Your task to perform on an android device: Go to notification settings Image 0: 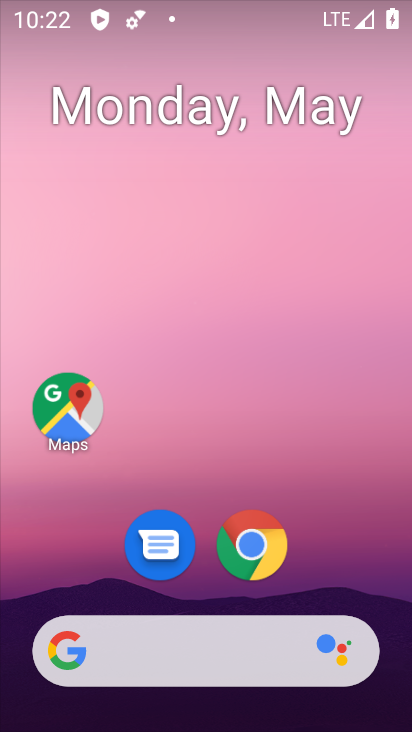
Step 0: drag from (340, 534) to (304, 38)
Your task to perform on an android device: Go to notification settings Image 1: 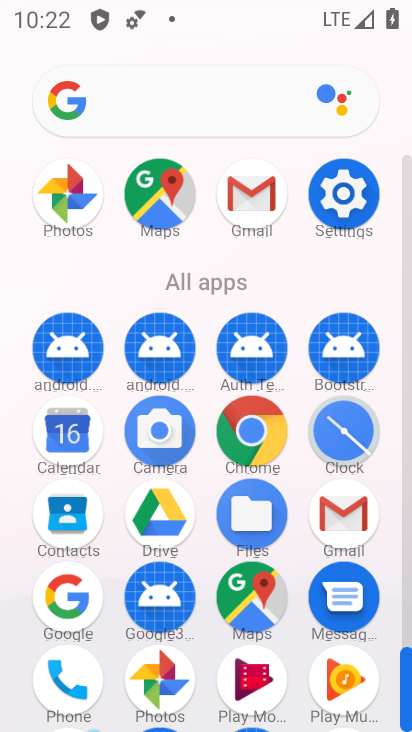
Step 1: click (345, 194)
Your task to perform on an android device: Go to notification settings Image 2: 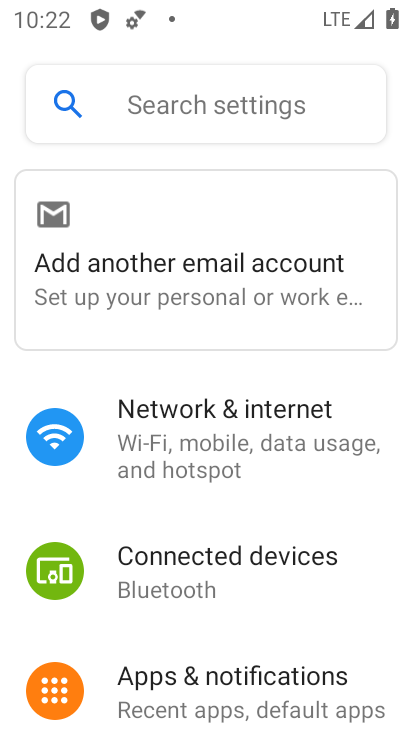
Step 2: drag from (209, 534) to (237, 374)
Your task to perform on an android device: Go to notification settings Image 3: 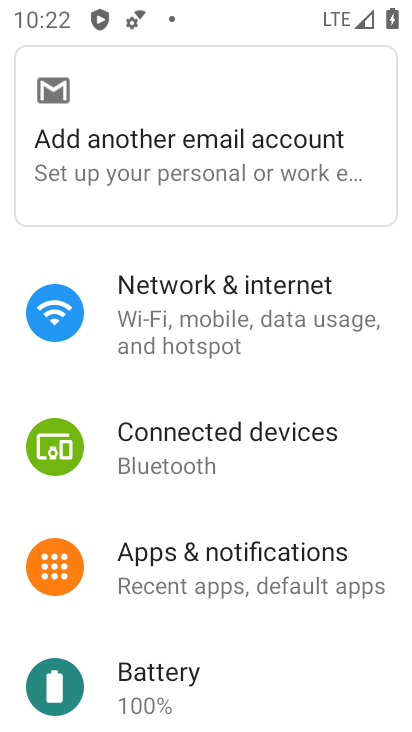
Step 3: click (197, 548)
Your task to perform on an android device: Go to notification settings Image 4: 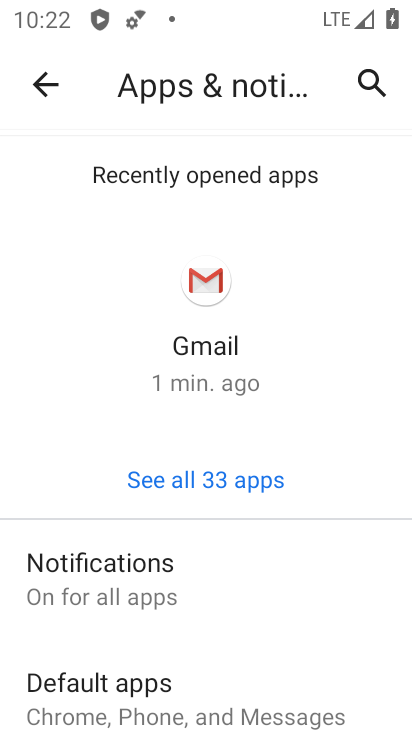
Step 4: click (118, 560)
Your task to perform on an android device: Go to notification settings Image 5: 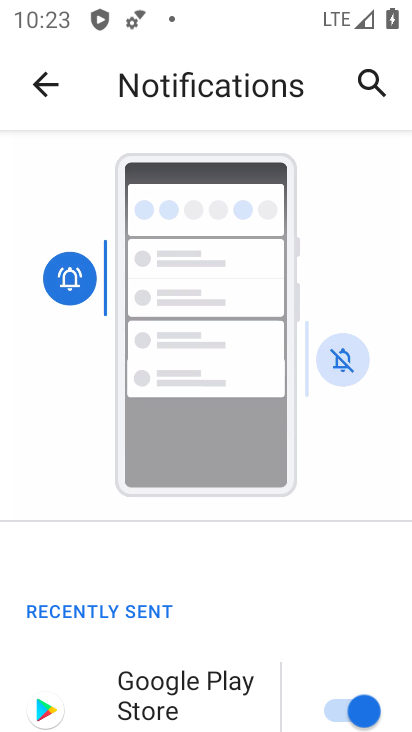
Step 5: task complete